Your task to perform on an android device: Open privacy settings Image 0: 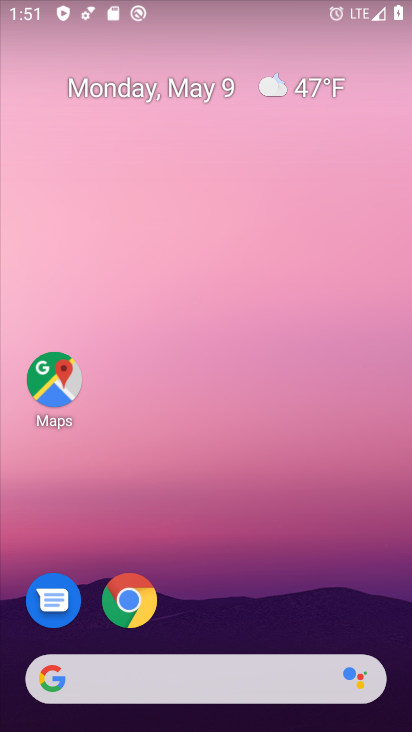
Step 0: drag from (168, 12) to (196, 375)
Your task to perform on an android device: Open privacy settings Image 1: 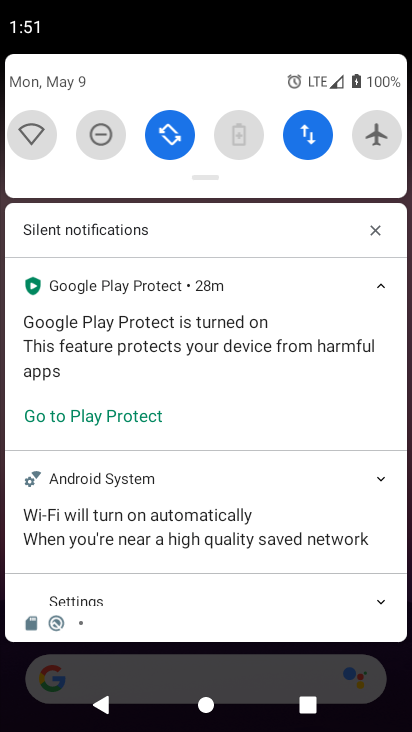
Step 1: drag from (198, 166) to (207, 445)
Your task to perform on an android device: Open privacy settings Image 2: 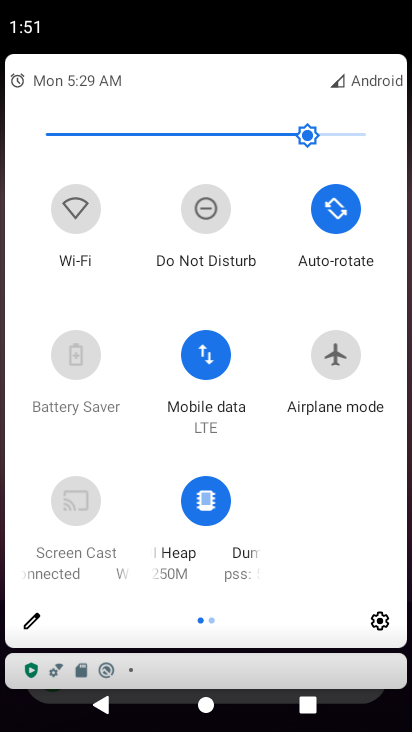
Step 2: press back button
Your task to perform on an android device: Open privacy settings Image 3: 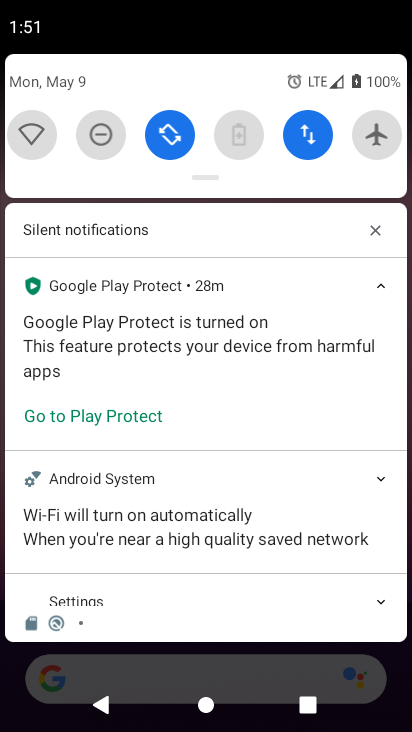
Step 3: press home button
Your task to perform on an android device: Open privacy settings Image 4: 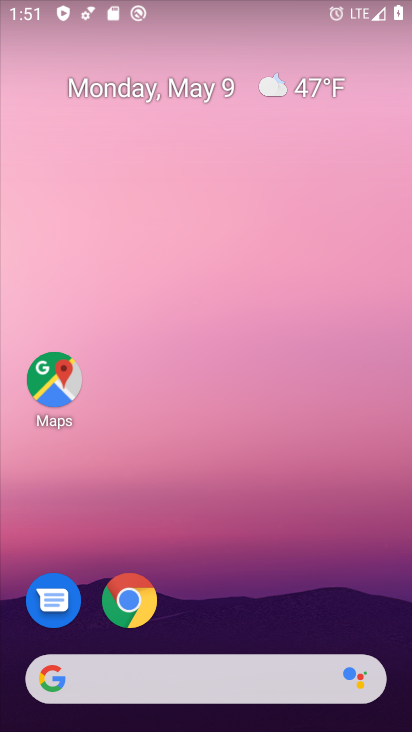
Step 4: drag from (153, 665) to (166, 89)
Your task to perform on an android device: Open privacy settings Image 5: 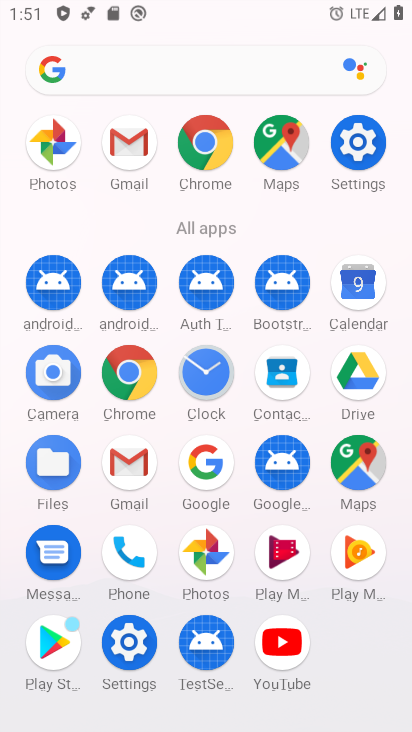
Step 5: click (347, 157)
Your task to perform on an android device: Open privacy settings Image 6: 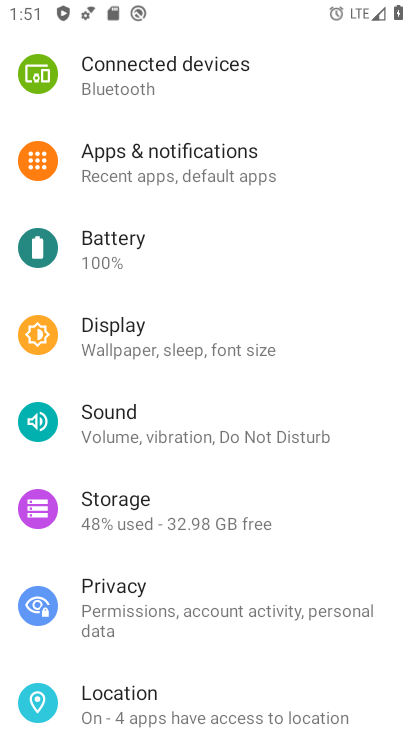
Step 6: click (124, 586)
Your task to perform on an android device: Open privacy settings Image 7: 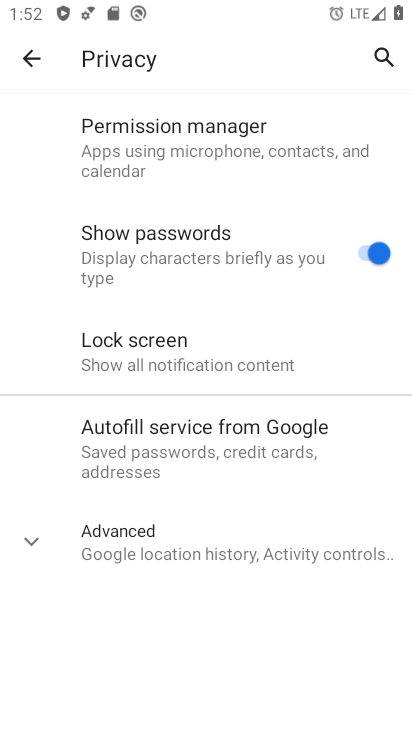
Step 7: task complete